Your task to perform on an android device: Go to Google maps Image 0: 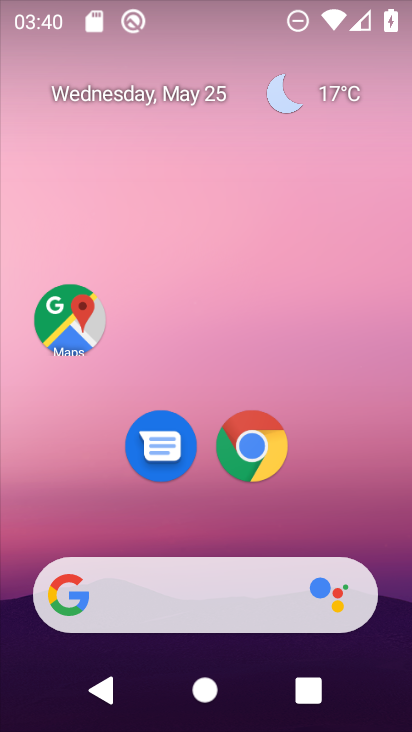
Step 0: click (75, 320)
Your task to perform on an android device: Go to Google maps Image 1: 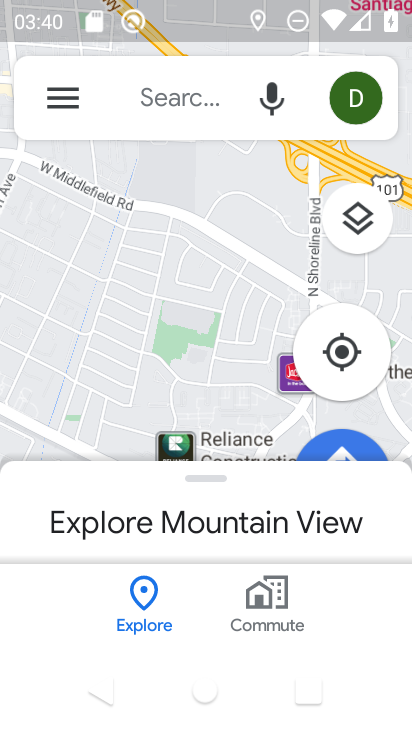
Step 1: task complete